Your task to perform on an android device: add a contact Image 0: 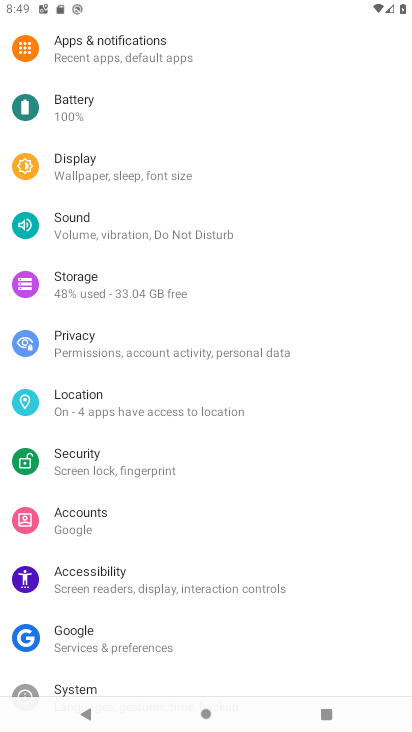
Step 0: press home button
Your task to perform on an android device: add a contact Image 1: 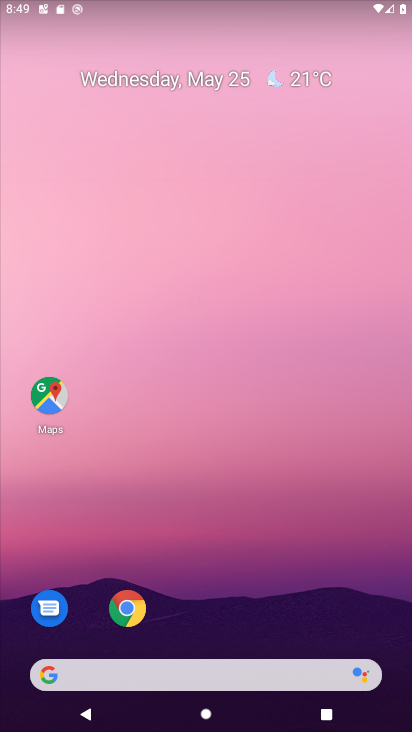
Step 1: drag from (229, 725) to (236, 91)
Your task to perform on an android device: add a contact Image 2: 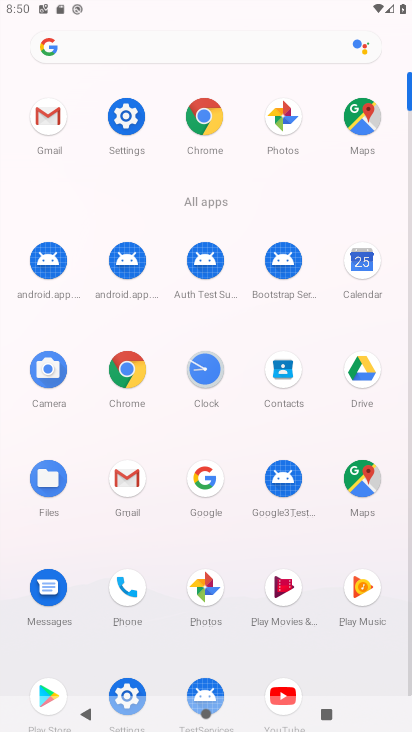
Step 2: click (282, 381)
Your task to perform on an android device: add a contact Image 3: 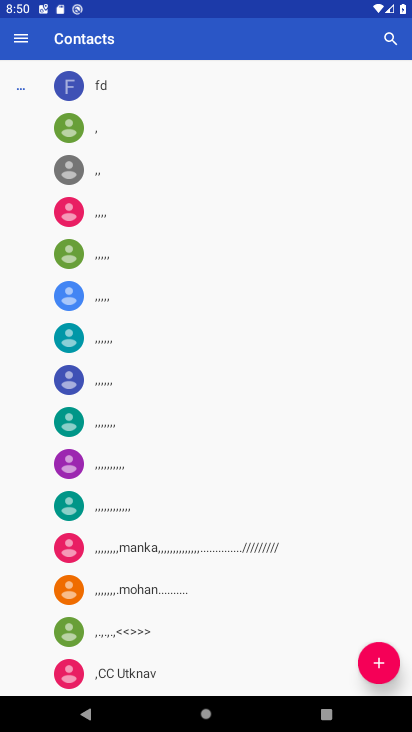
Step 3: click (381, 664)
Your task to perform on an android device: add a contact Image 4: 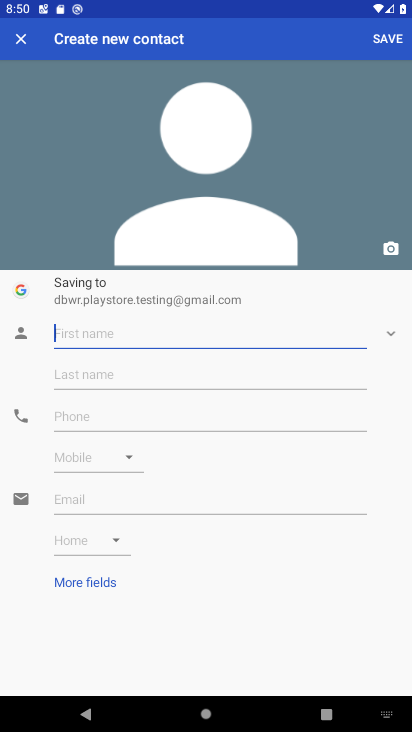
Step 4: type "yamraj2"
Your task to perform on an android device: add a contact Image 5: 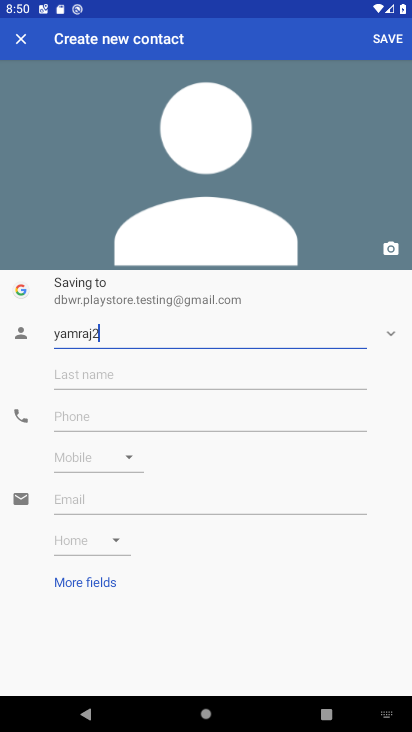
Step 5: click (131, 407)
Your task to perform on an android device: add a contact Image 6: 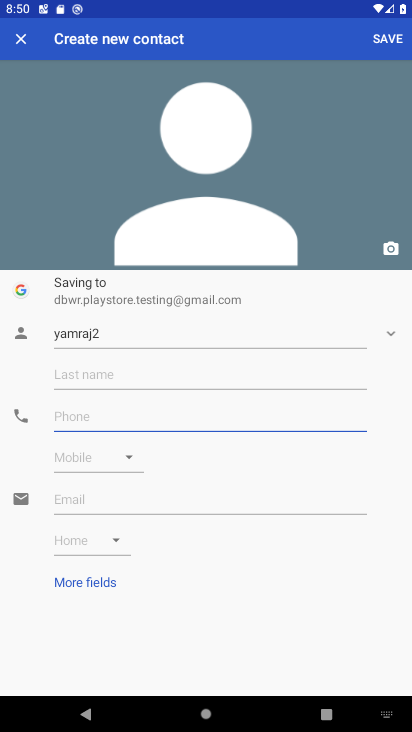
Step 6: type "333"
Your task to perform on an android device: add a contact Image 7: 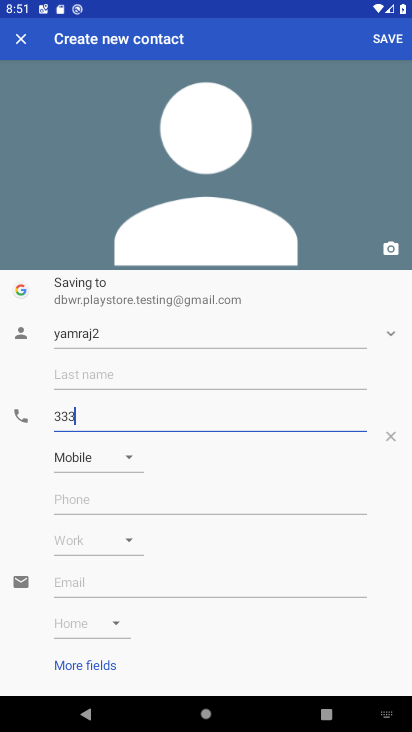
Step 7: click (395, 39)
Your task to perform on an android device: add a contact Image 8: 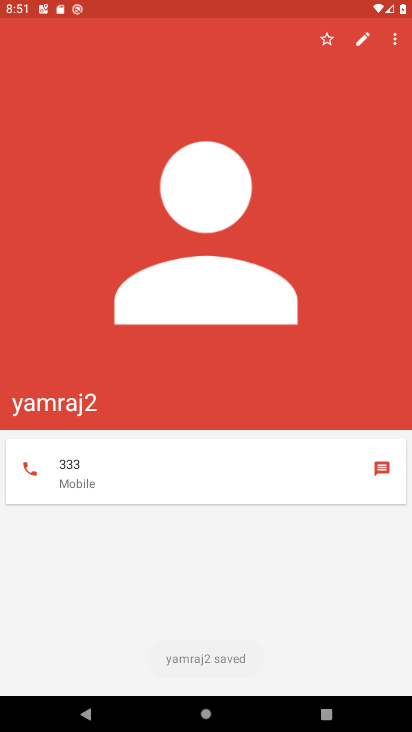
Step 8: task complete